Your task to perform on an android device: Open Chrome and go to the settings page Image 0: 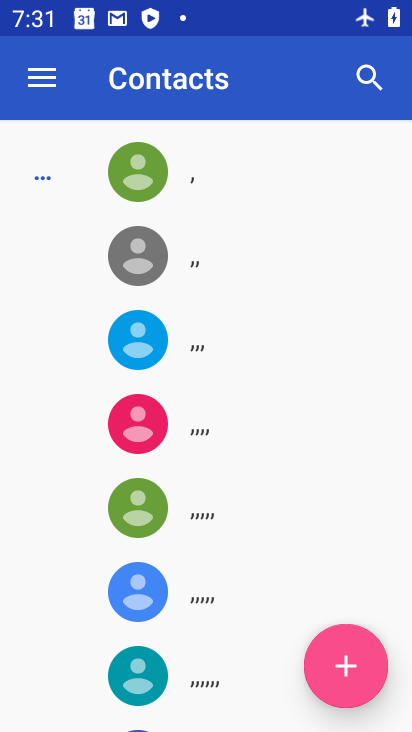
Step 0: press home button
Your task to perform on an android device: Open Chrome and go to the settings page Image 1: 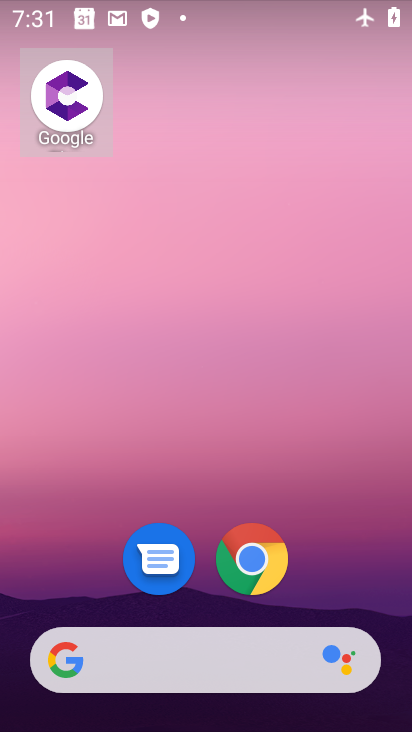
Step 1: click (255, 556)
Your task to perform on an android device: Open Chrome and go to the settings page Image 2: 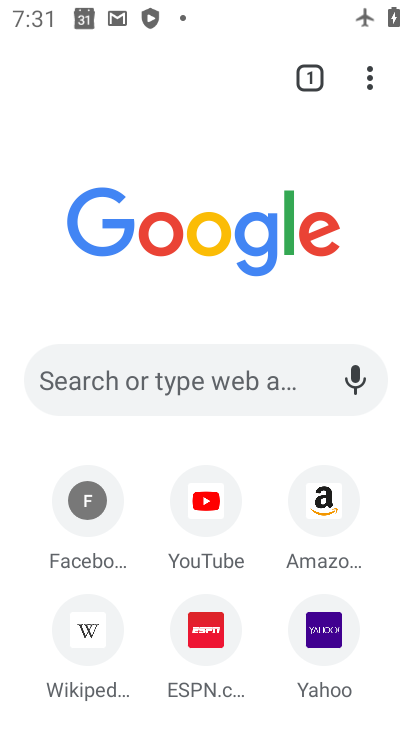
Step 2: click (372, 80)
Your task to perform on an android device: Open Chrome and go to the settings page Image 3: 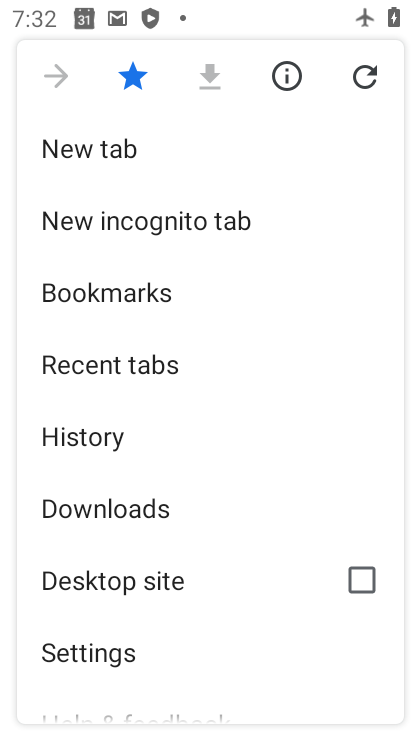
Step 3: press home button
Your task to perform on an android device: Open Chrome and go to the settings page Image 4: 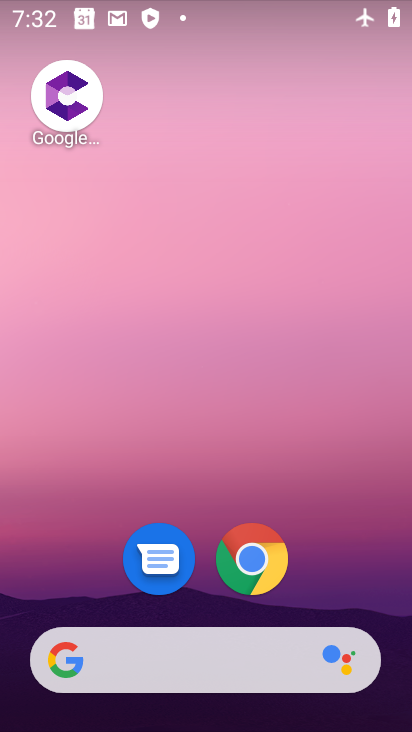
Step 4: click (253, 557)
Your task to perform on an android device: Open Chrome and go to the settings page Image 5: 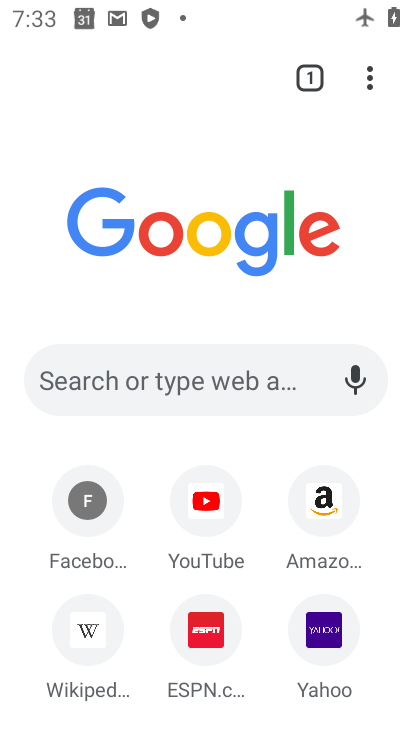
Step 5: click (368, 78)
Your task to perform on an android device: Open Chrome and go to the settings page Image 6: 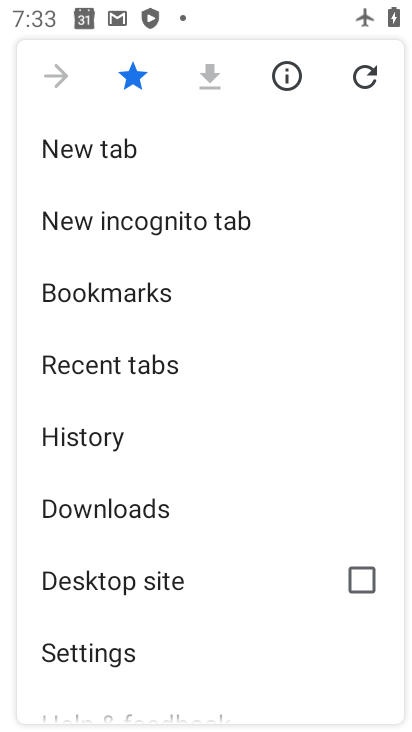
Step 6: click (106, 652)
Your task to perform on an android device: Open Chrome and go to the settings page Image 7: 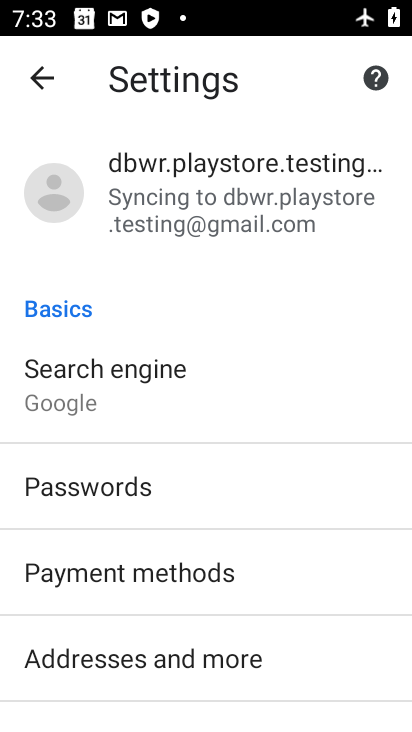
Step 7: task complete